Your task to perform on an android device: turn on priority inbox in the gmail app Image 0: 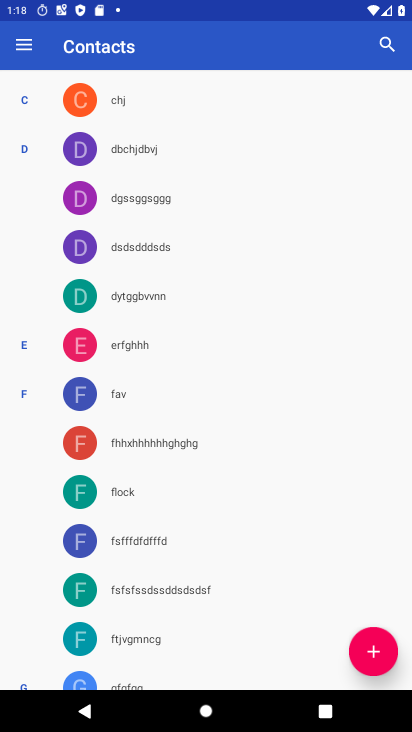
Step 0: press home button
Your task to perform on an android device: turn on priority inbox in the gmail app Image 1: 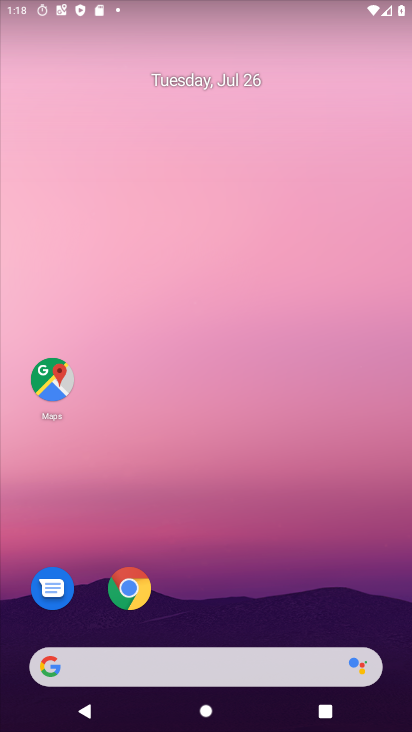
Step 1: drag from (318, 585) to (246, 229)
Your task to perform on an android device: turn on priority inbox in the gmail app Image 2: 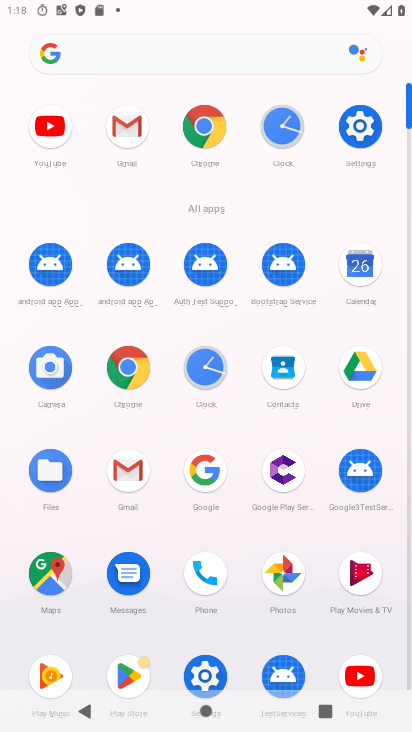
Step 2: click (127, 467)
Your task to perform on an android device: turn on priority inbox in the gmail app Image 3: 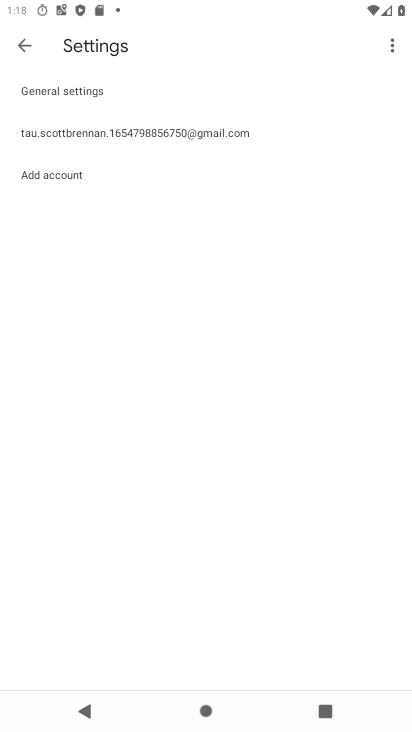
Step 3: click (54, 132)
Your task to perform on an android device: turn on priority inbox in the gmail app Image 4: 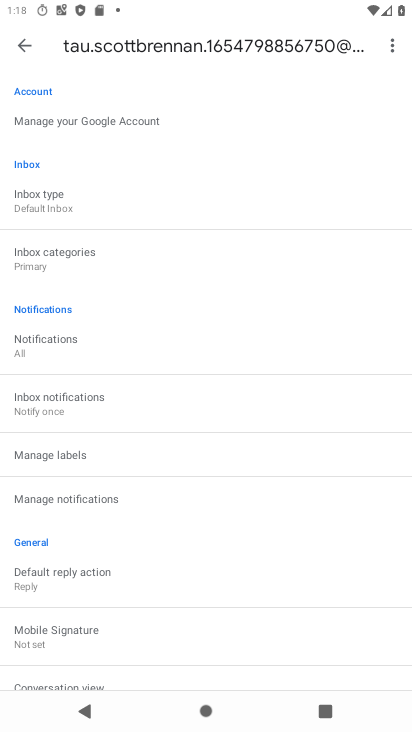
Step 4: click (94, 197)
Your task to perform on an android device: turn on priority inbox in the gmail app Image 5: 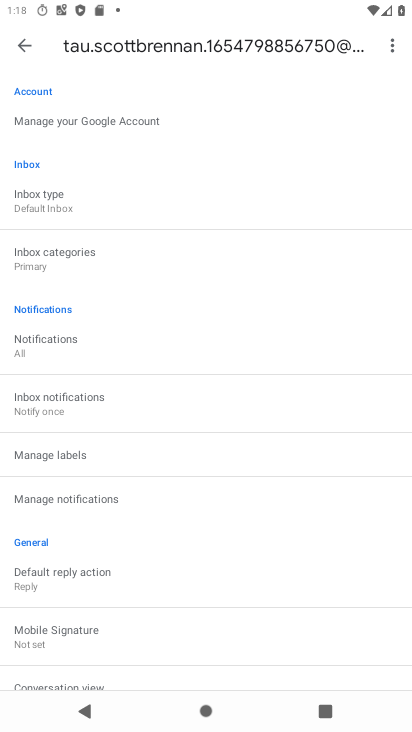
Step 5: click (94, 197)
Your task to perform on an android device: turn on priority inbox in the gmail app Image 6: 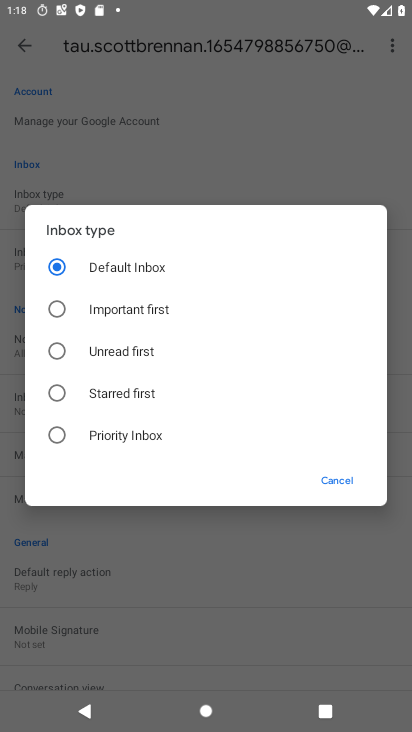
Step 6: click (139, 438)
Your task to perform on an android device: turn on priority inbox in the gmail app Image 7: 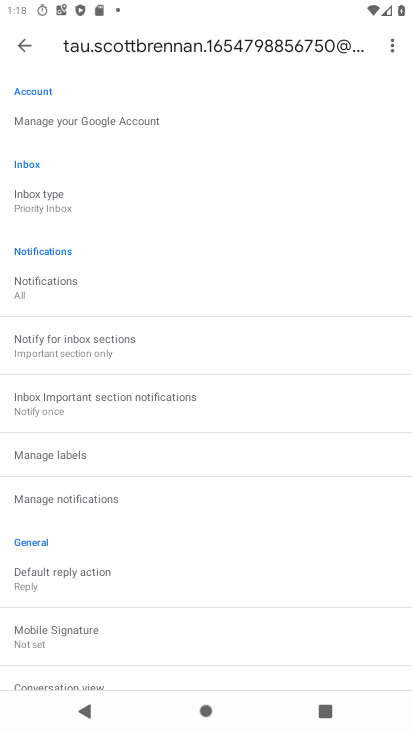
Step 7: task complete